Your task to perform on an android device: Open Chrome and go to settings Image 0: 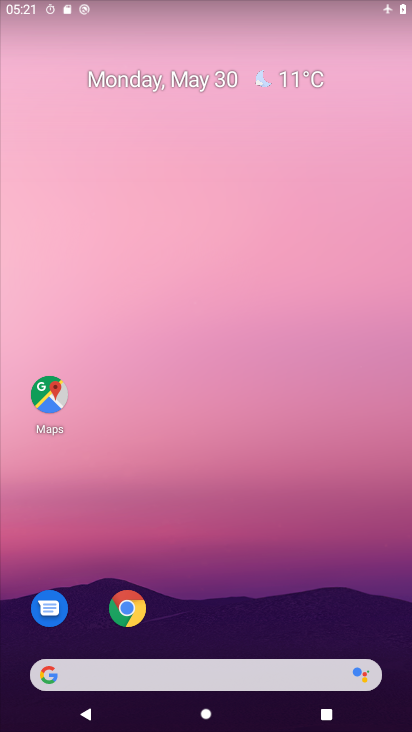
Step 0: click (135, 605)
Your task to perform on an android device: Open Chrome and go to settings Image 1: 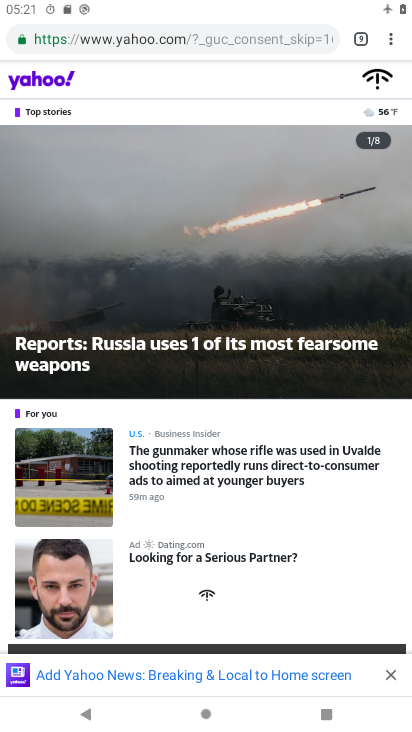
Step 1: click (384, 30)
Your task to perform on an android device: Open Chrome and go to settings Image 2: 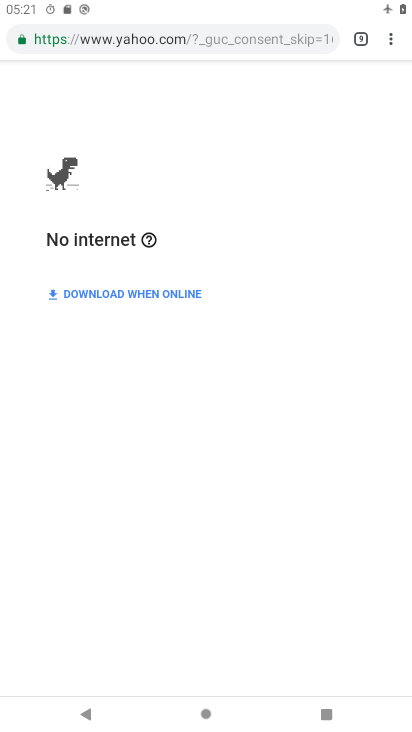
Step 2: click (388, 39)
Your task to perform on an android device: Open Chrome and go to settings Image 3: 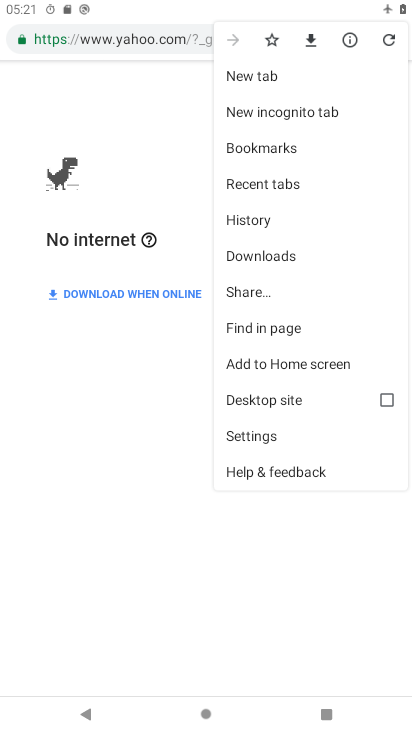
Step 3: click (285, 444)
Your task to perform on an android device: Open Chrome and go to settings Image 4: 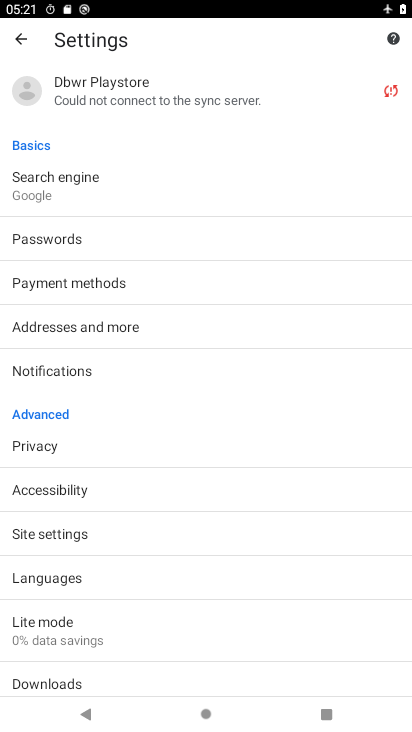
Step 4: task complete